Your task to perform on an android device: delete browsing data in the chrome app Image 0: 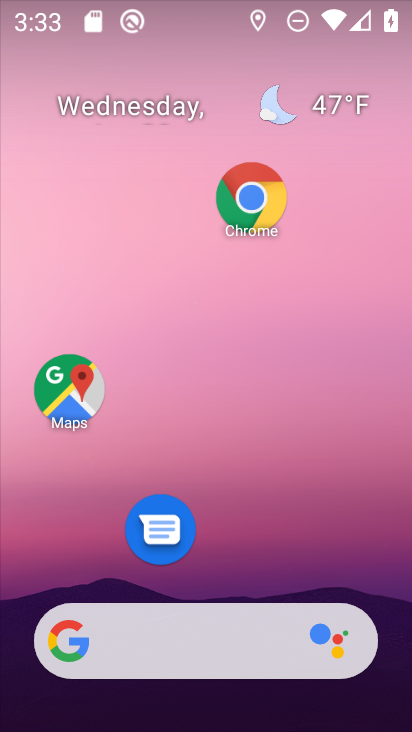
Step 0: click (248, 203)
Your task to perform on an android device: delete browsing data in the chrome app Image 1: 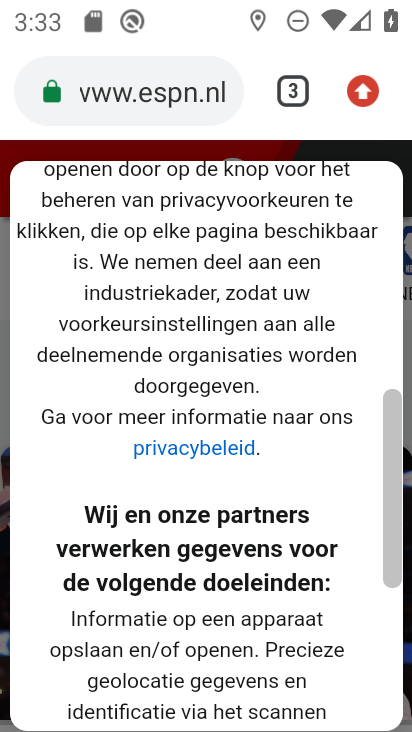
Step 1: click (365, 91)
Your task to perform on an android device: delete browsing data in the chrome app Image 2: 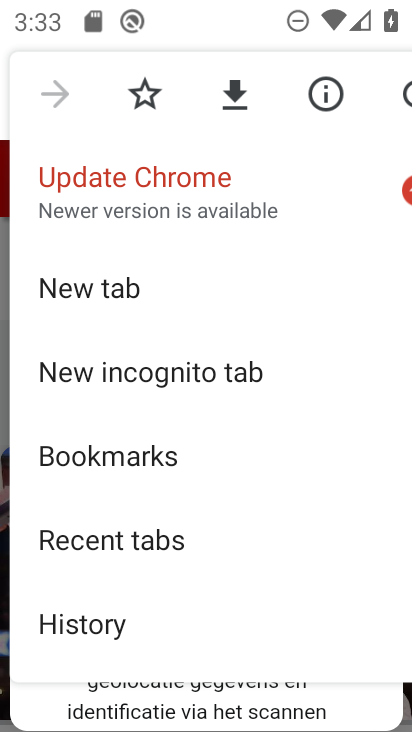
Step 2: click (87, 618)
Your task to perform on an android device: delete browsing data in the chrome app Image 3: 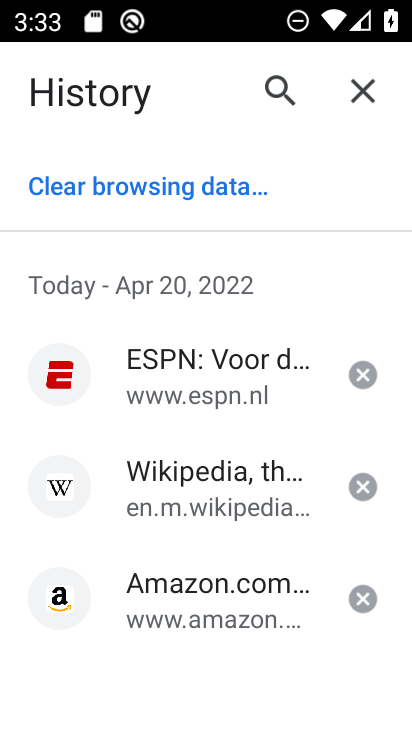
Step 3: click (176, 189)
Your task to perform on an android device: delete browsing data in the chrome app Image 4: 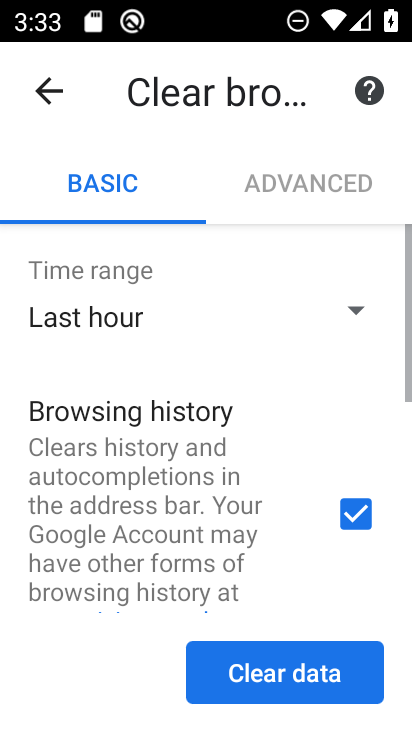
Step 4: click (308, 672)
Your task to perform on an android device: delete browsing data in the chrome app Image 5: 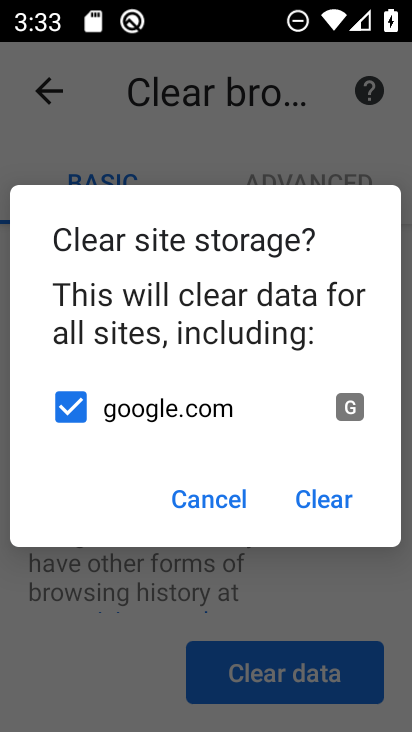
Step 5: click (316, 496)
Your task to perform on an android device: delete browsing data in the chrome app Image 6: 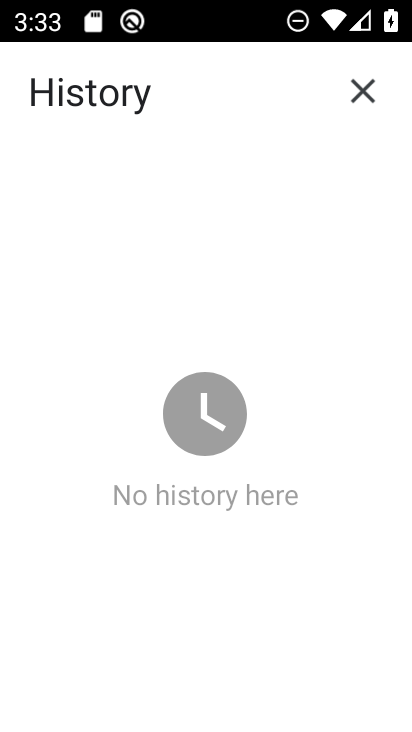
Step 6: task complete